Your task to perform on an android device: Open sound settings Image 0: 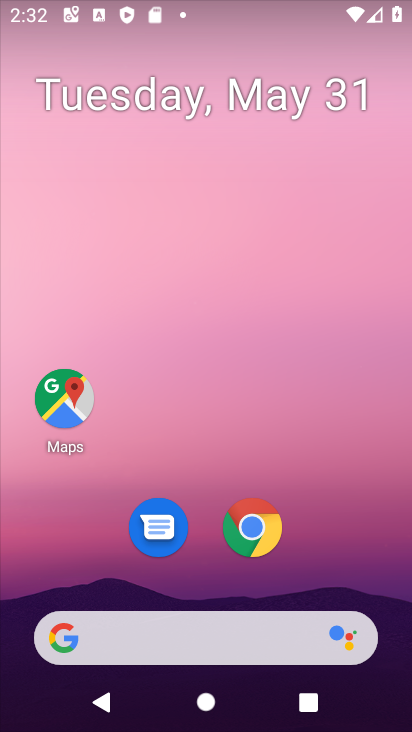
Step 0: drag from (392, 620) to (292, 156)
Your task to perform on an android device: Open sound settings Image 1: 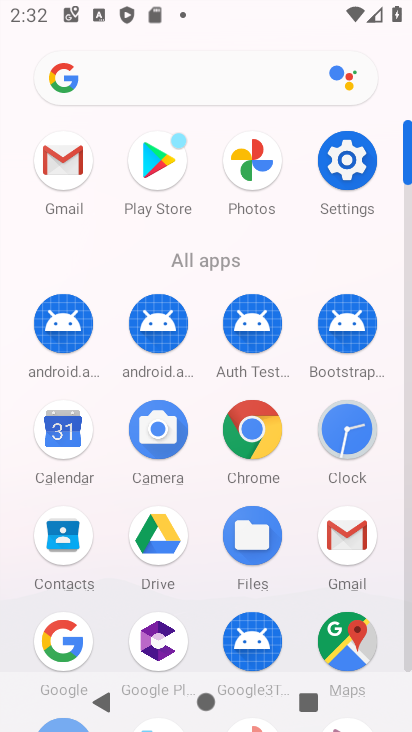
Step 1: click (409, 654)
Your task to perform on an android device: Open sound settings Image 2: 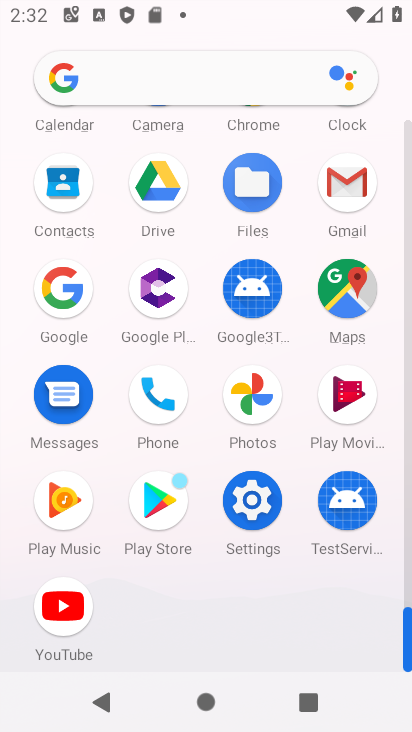
Step 2: click (250, 496)
Your task to perform on an android device: Open sound settings Image 3: 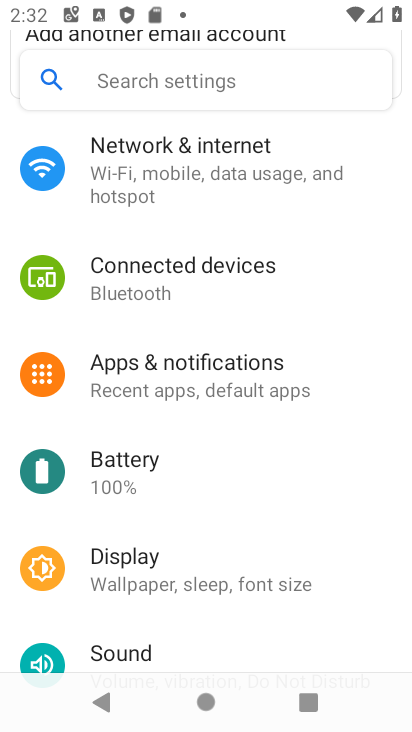
Step 3: drag from (240, 606) to (222, 280)
Your task to perform on an android device: Open sound settings Image 4: 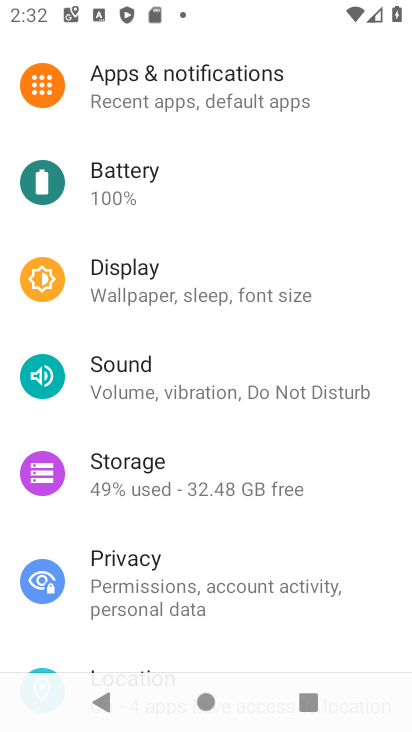
Step 4: click (146, 361)
Your task to perform on an android device: Open sound settings Image 5: 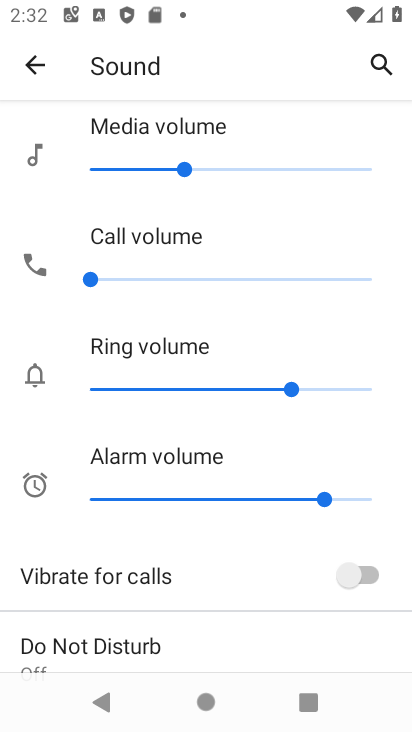
Step 5: drag from (259, 564) to (241, 176)
Your task to perform on an android device: Open sound settings Image 6: 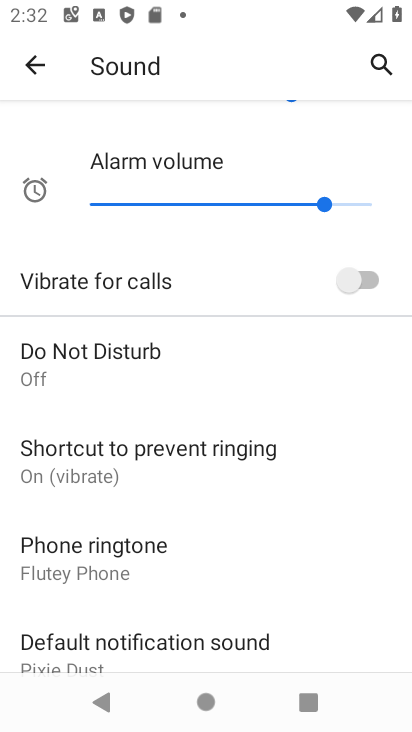
Step 6: drag from (285, 542) to (271, 208)
Your task to perform on an android device: Open sound settings Image 7: 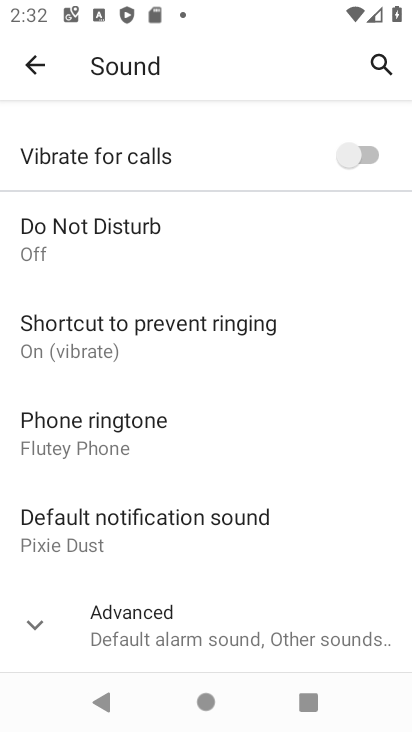
Step 7: click (34, 623)
Your task to perform on an android device: Open sound settings Image 8: 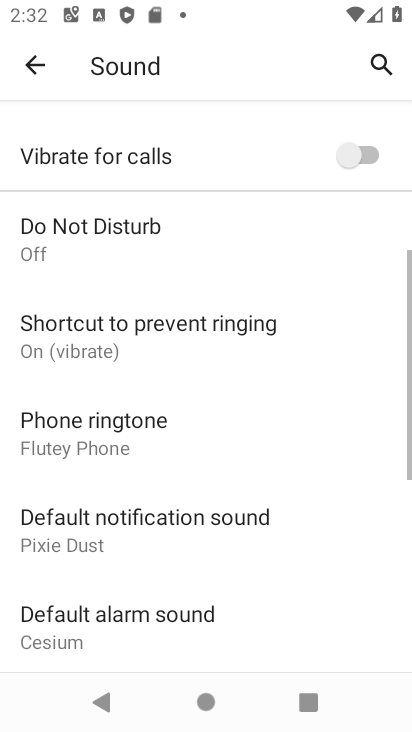
Step 8: task complete